Your task to perform on an android device: turn off notifications in google photos Image 0: 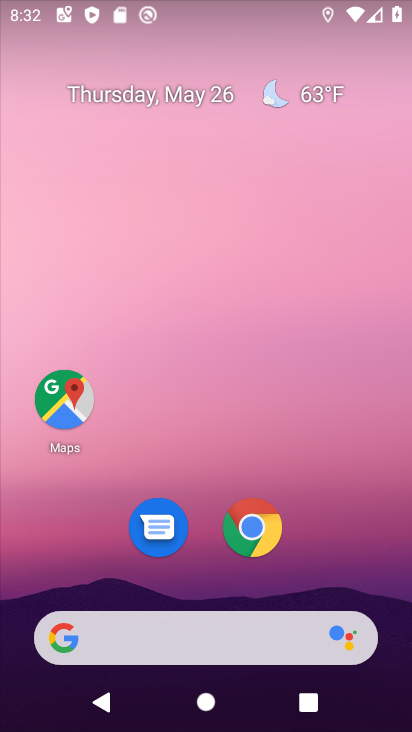
Step 0: drag from (358, 536) to (301, 104)
Your task to perform on an android device: turn off notifications in google photos Image 1: 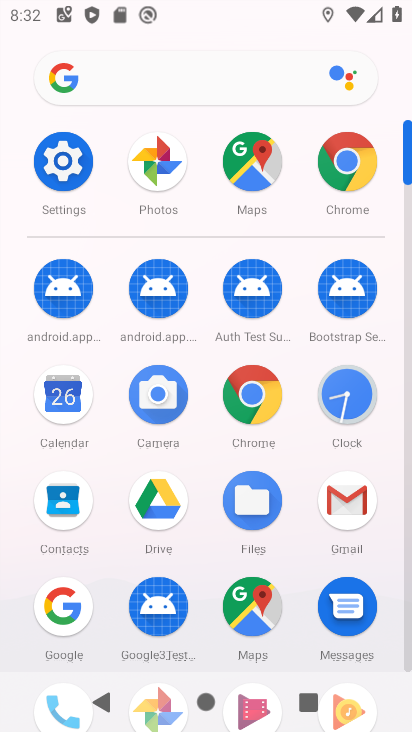
Step 1: click (159, 160)
Your task to perform on an android device: turn off notifications in google photos Image 2: 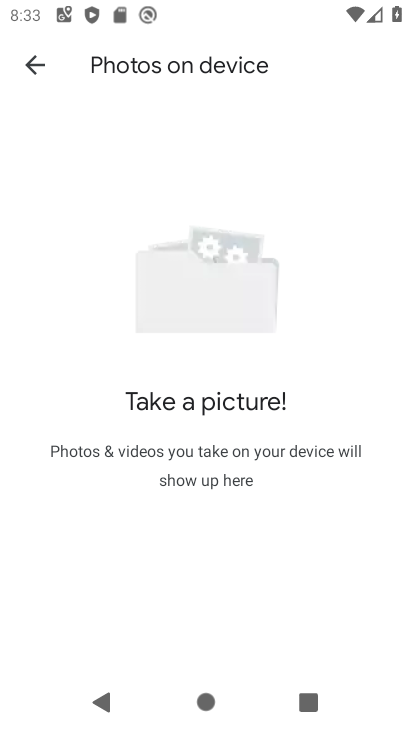
Step 2: click (20, 82)
Your task to perform on an android device: turn off notifications in google photos Image 3: 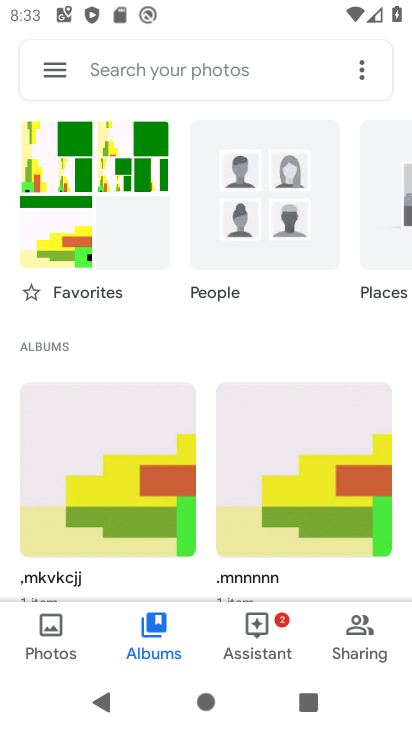
Step 3: click (50, 60)
Your task to perform on an android device: turn off notifications in google photos Image 4: 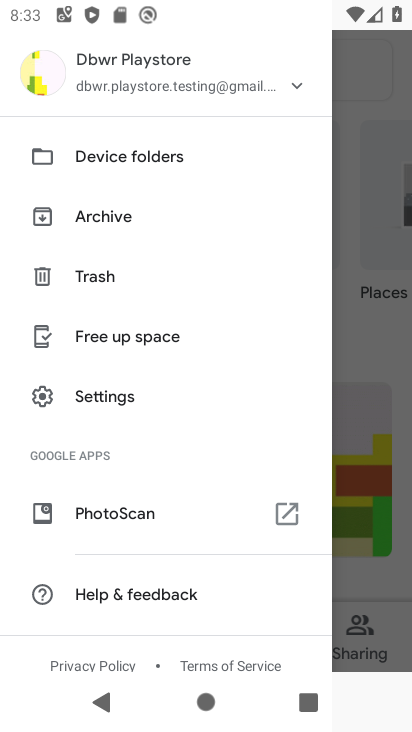
Step 4: click (105, 387)
Your task to perform on an android device: turn off notifications in google photos Image 5: 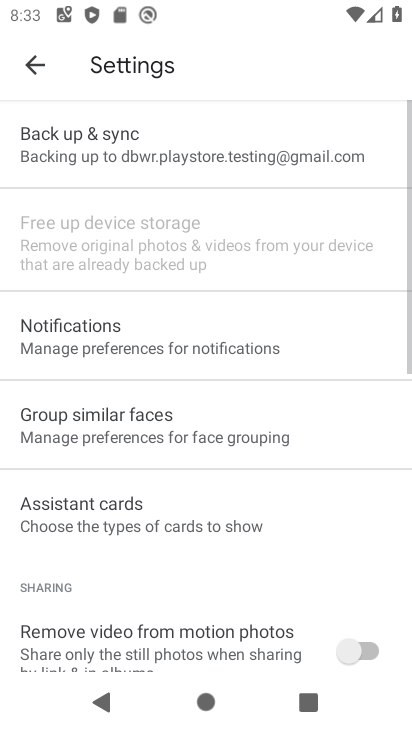
Step 5: click (104, 347)
Your task to perform on an android device: turn off notifications in google photos Image 6: 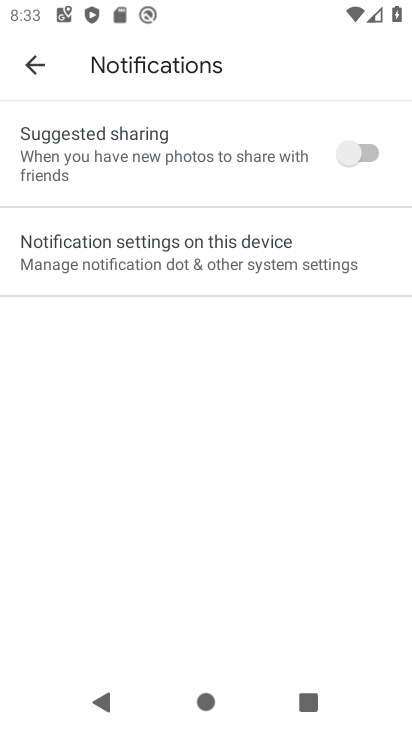
Step 6: click (162, 246)
Your task to perform on an android device: turn off notifications in google photos Image 7: 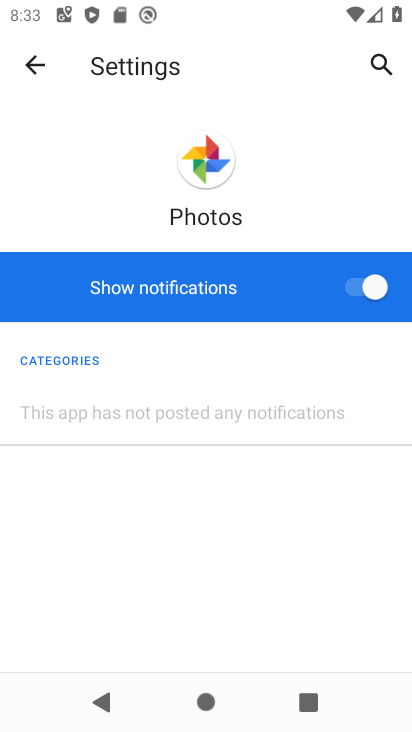
Step 7: click (381, 287)
Your task to perform on an android device: turn off notifications in google photos Image 8: 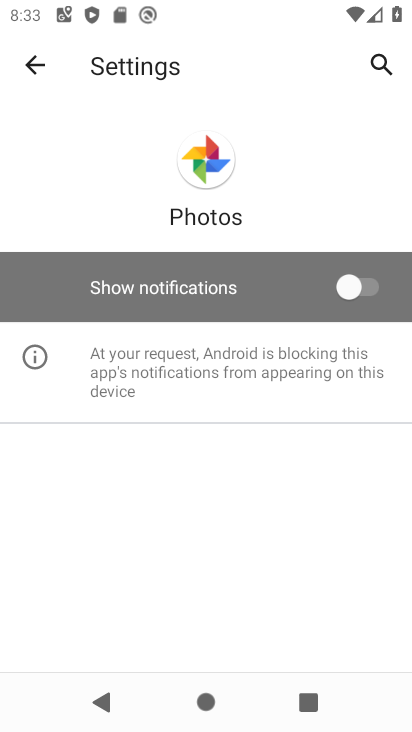
Step 8: task complete